Your task to perform on an android device: Clear the cart on ebay.com. Search for "macbook" on ebay.com, select the first entry, add it to the cart, then select checkout. Image 0: 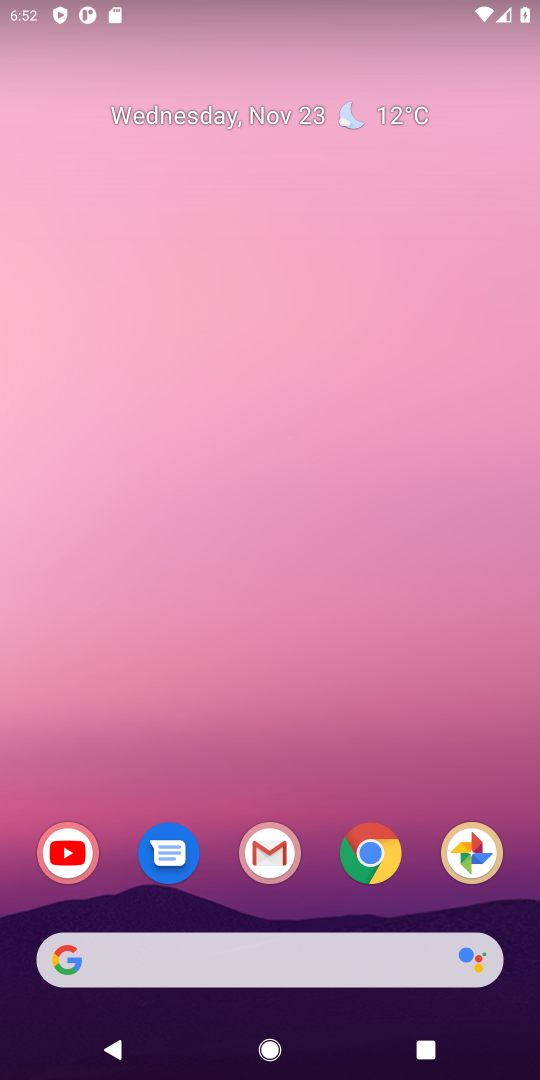
Step 0: click (379, 865)
Your task to perform on an android device: Clear the cart on ebay.com. Search for "macbook" on ebay.com, select the first entry, add it to the cart, then select checkout. Image 1: 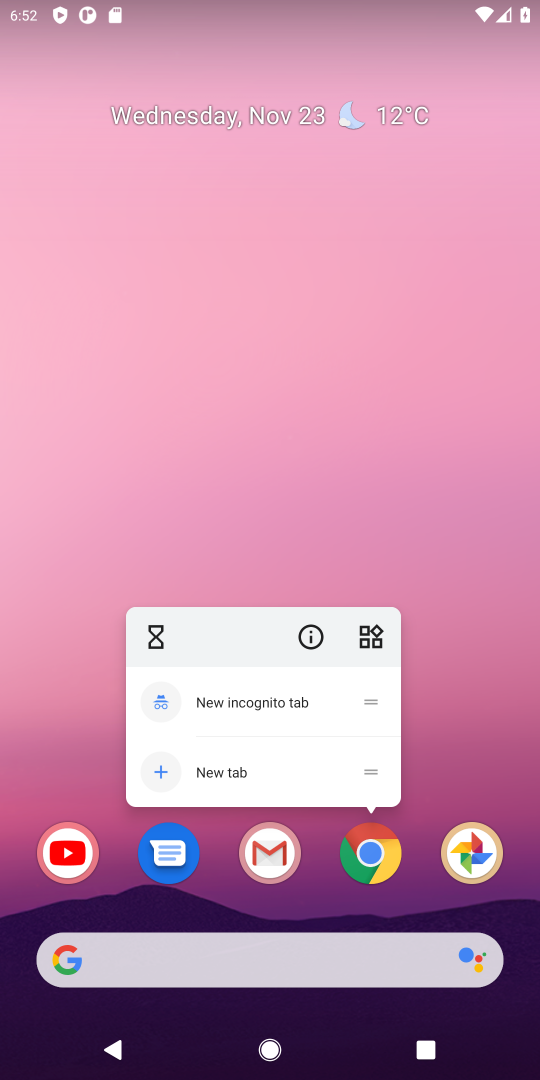
Step 1: click (379, 865)
Your task to perform on an android device: Clear the cart on ebay.com. Search for "macbook" on ebay.com, select the first entry, add it to the cart, then select checkout. Image 2: 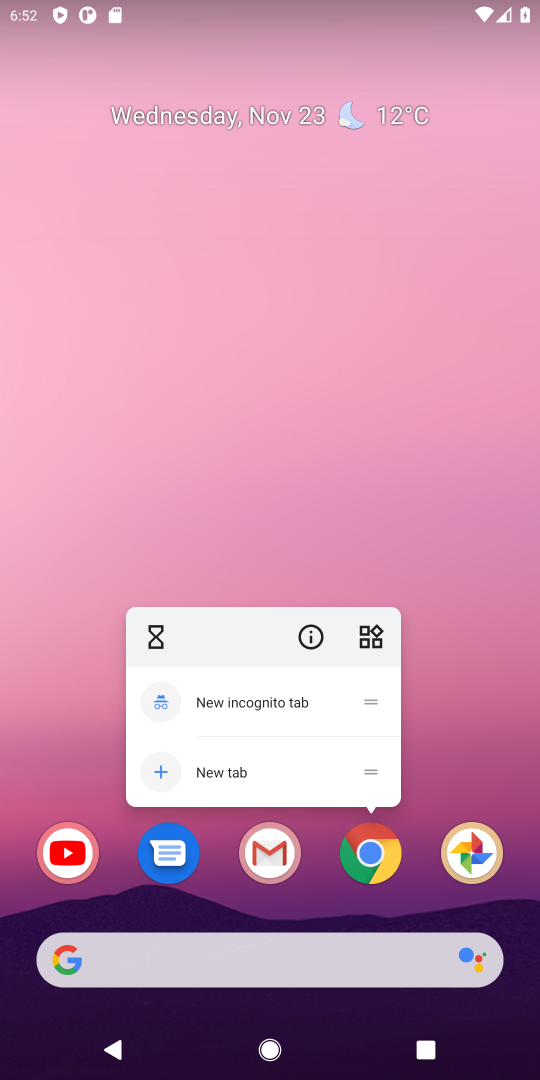
Step 2: click (525, 644)
Your task to perform on an android device: Clear the cart on ebay.com. Search for "macbook" on ebay.com, select the first entry, add it to the cart, then select checkout. Image 3: 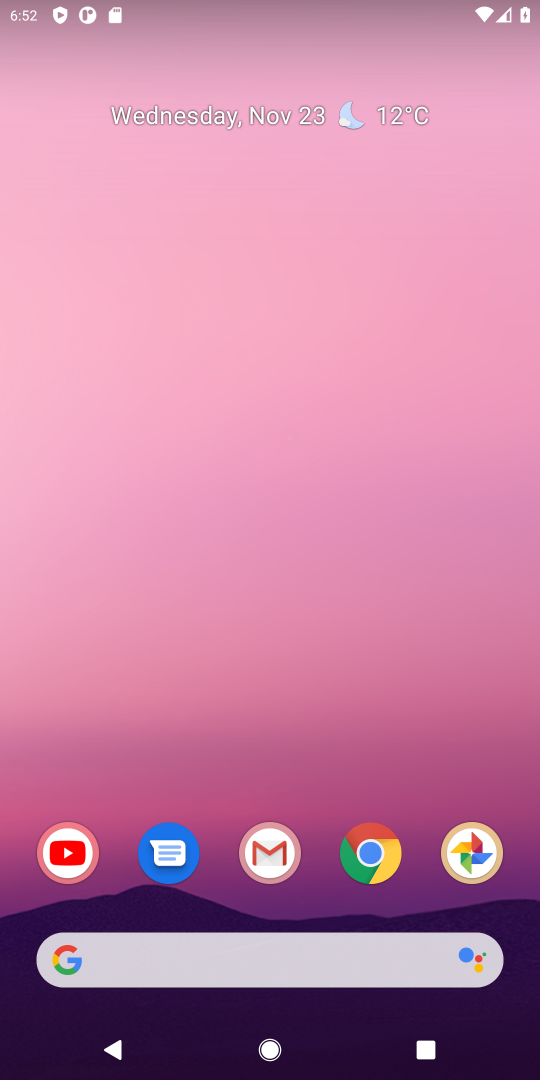
Step 3: click (373, 842)
Your task to perform on an android device: Clear the cart on ebay.com. Search for "macbook" on ebay.com, select the first entry, add it to the cart, then select checkout. Image 4: 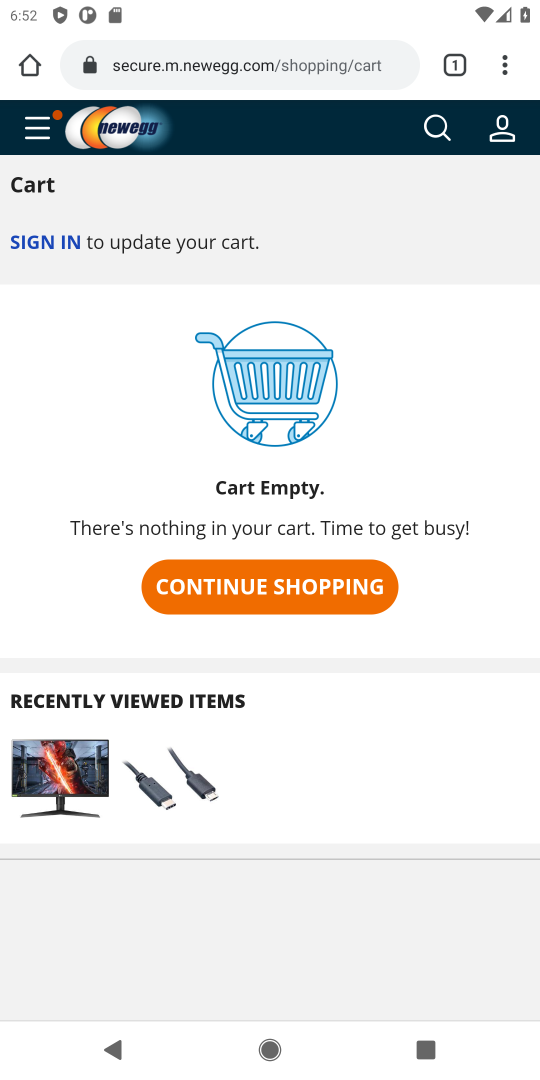
Step 4: click (249, 71)
Your task to perform on an android device: Clear the cart on ebay.com. Search for "macbook" on ebay.com, select the first entry, add it to the cart, then select checkout. Image 5: 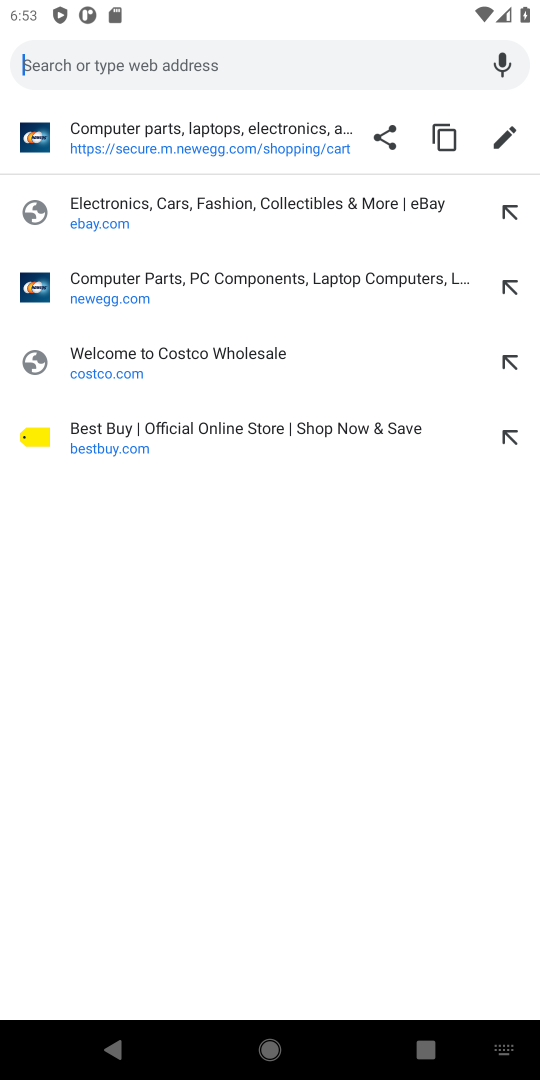
Step 5: click (91, 213)
Your task to perform on an android device: Clear the cart on ebay.com. Search for "macbook" on ebay.com, select the first entry, add it to the cart, then select checkout. Image 6: 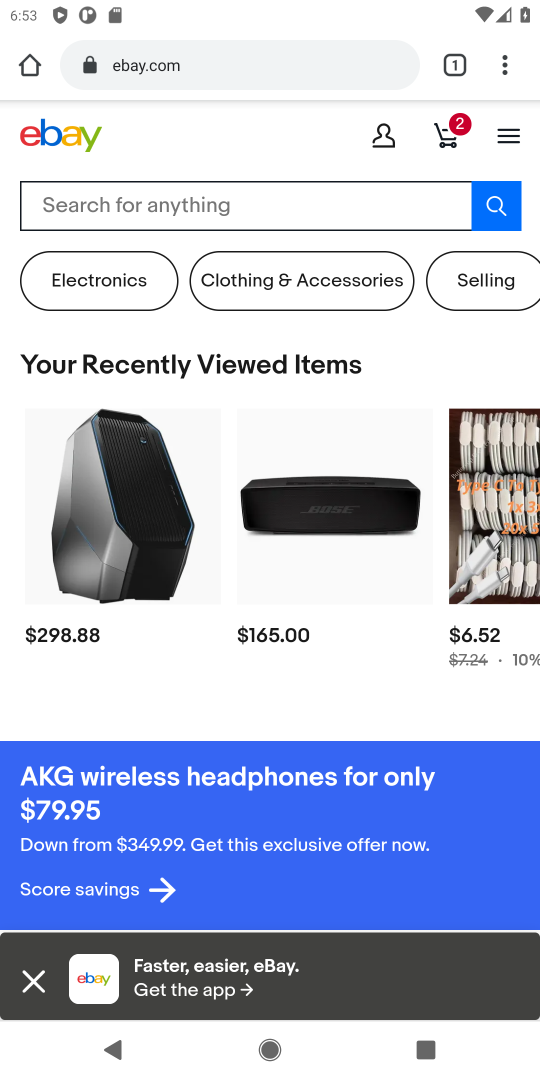
Step 6: click (440, 141)
Your task to perform on an android device: Clear the cart on ebay.com. Search for "macbook" on ebay.com, select the first entry, add it to the cart, then select checkout. Image 7: 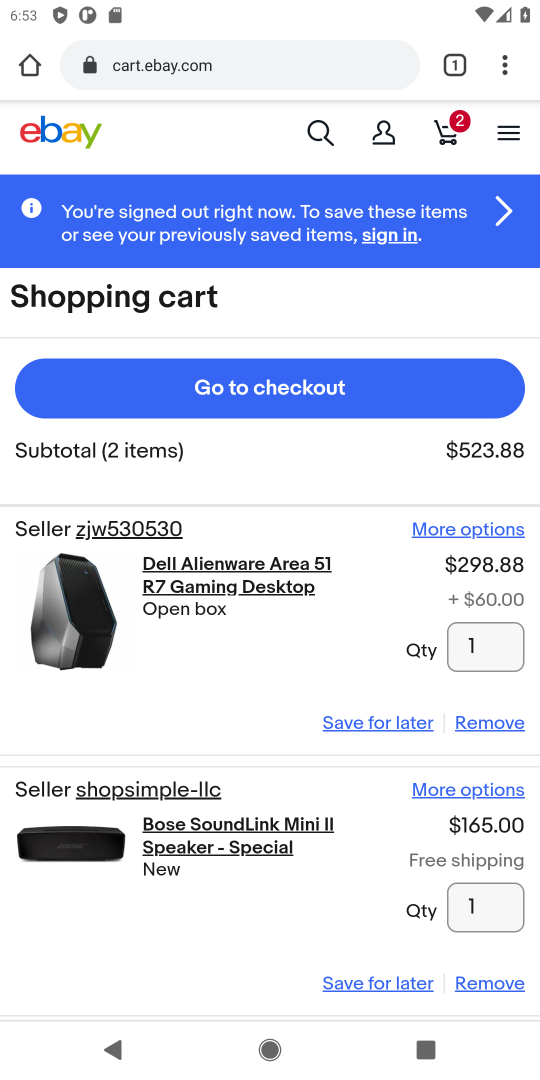
Step 7: click (480, 723)
Your task to perform on an android device: Clear the cart on ebay.com. Search for "macbook" on ebay.com, select the first entry, add it to the cart, then select checkout. Image 8: 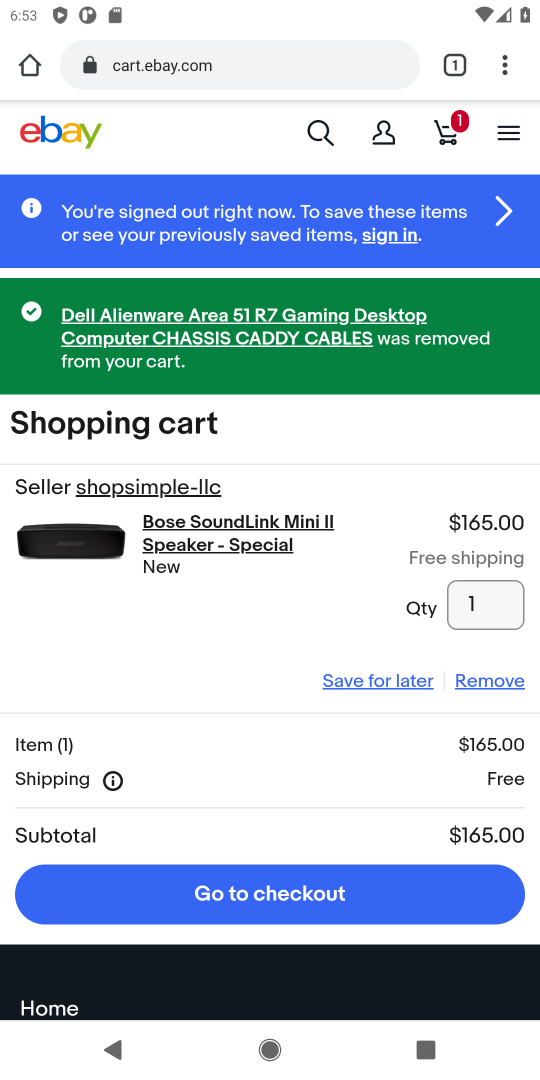
Step 8: click (490, 687)
Your task to perform on an android device: Clear the cart on ebay.com. Search for "macbook" on ebay.com, select the first entry, add it to the cart, then select checkout. Image 9: 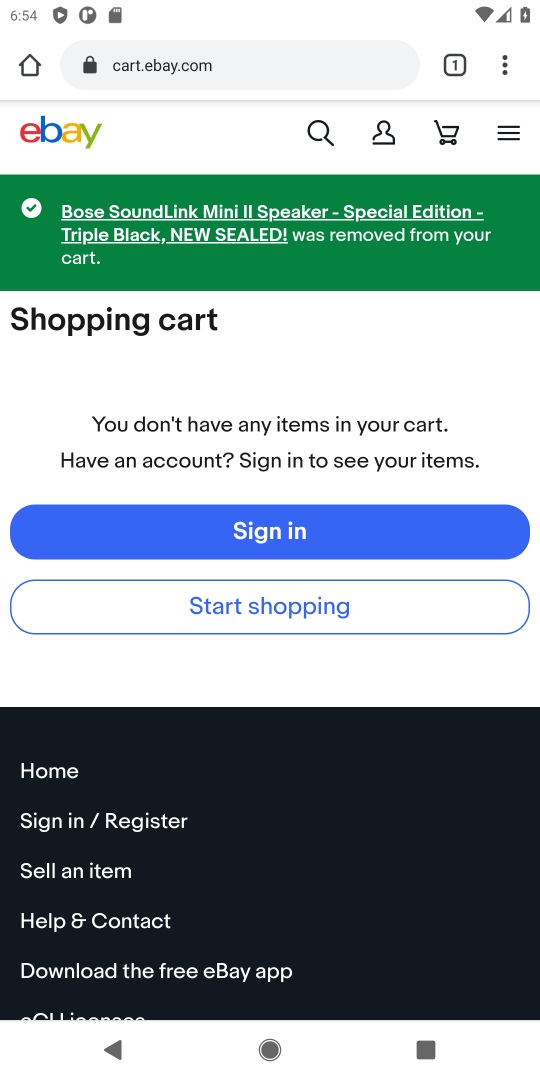
Step 9: click (319, 134)
Your task to perform on an android device: Clear the cart on ebay.com. Search for "macbook" on ebay.com, select the first entry, add it to the cart, then select checkout. Image 10: 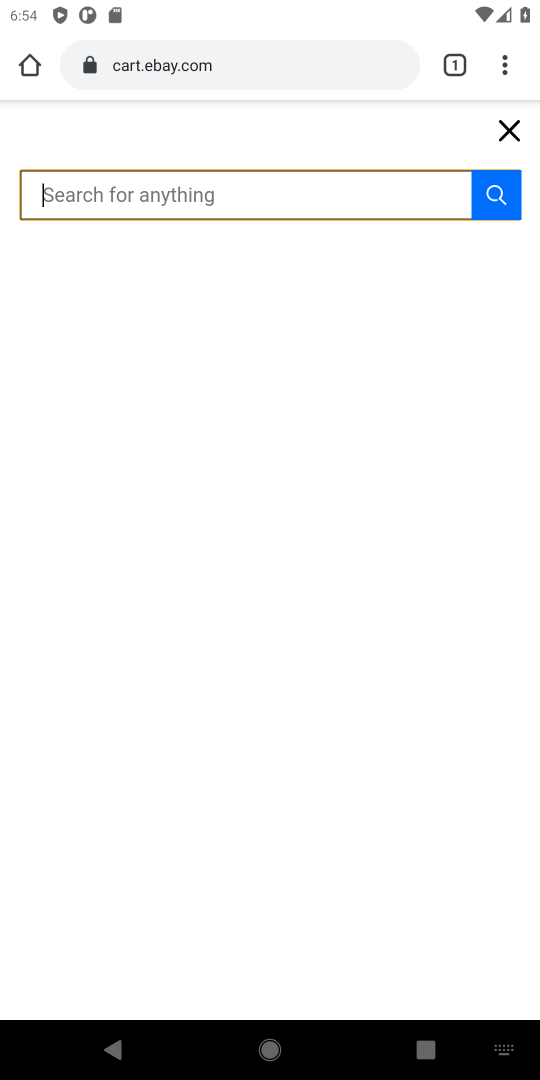
Step 10: type "macbook"
Your task to perform on an android device: Clear the cart on ebay.com. Search for "macbook" on ebay.com, select the first entry, add it to the cart, then select checkout. Image 11: 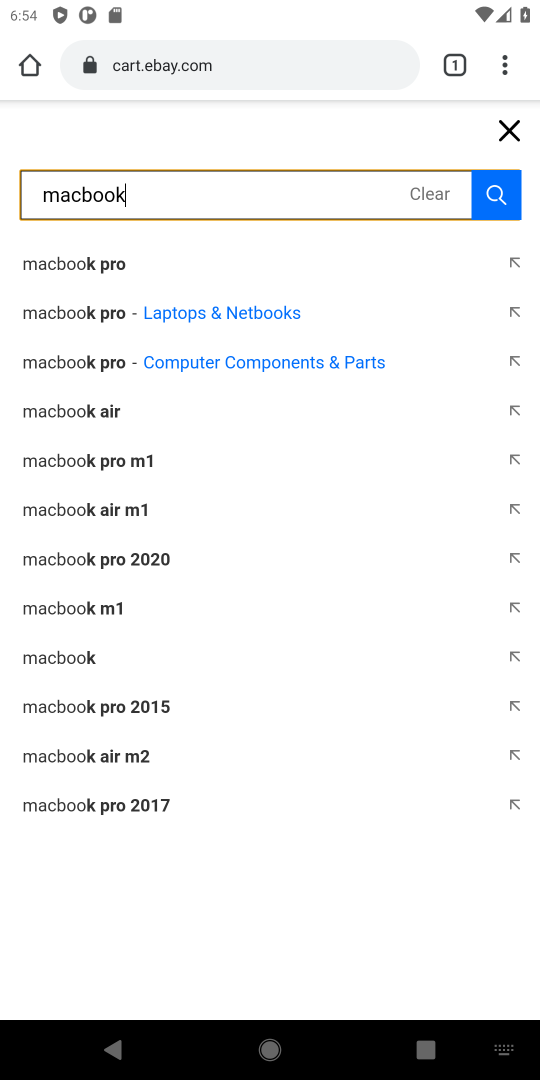
Step 11: click (72, 667)
Your task to perform on an android device: Clear the cart on ebay.com. Search for "macbook" on ebay.com, select the first entry, add it to the cart, then select checkout. Image 12: 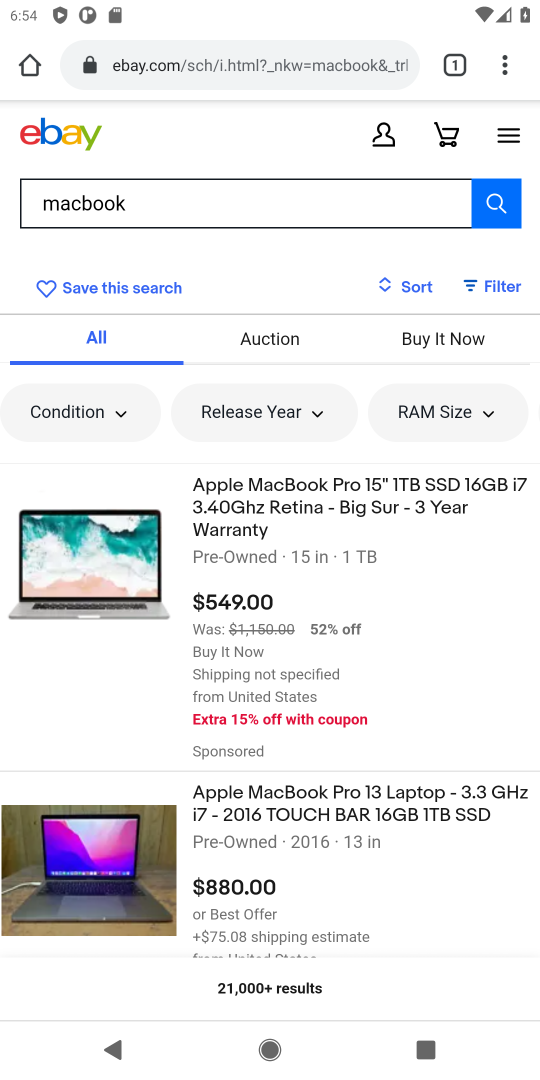
Step 12: click (116, 573)
Your task to perform on an android device: Clear the cart on ebay.com. Search for "macbook" on ebay.com, select the first entry, add it to the cart, then select checkout. Image 13: 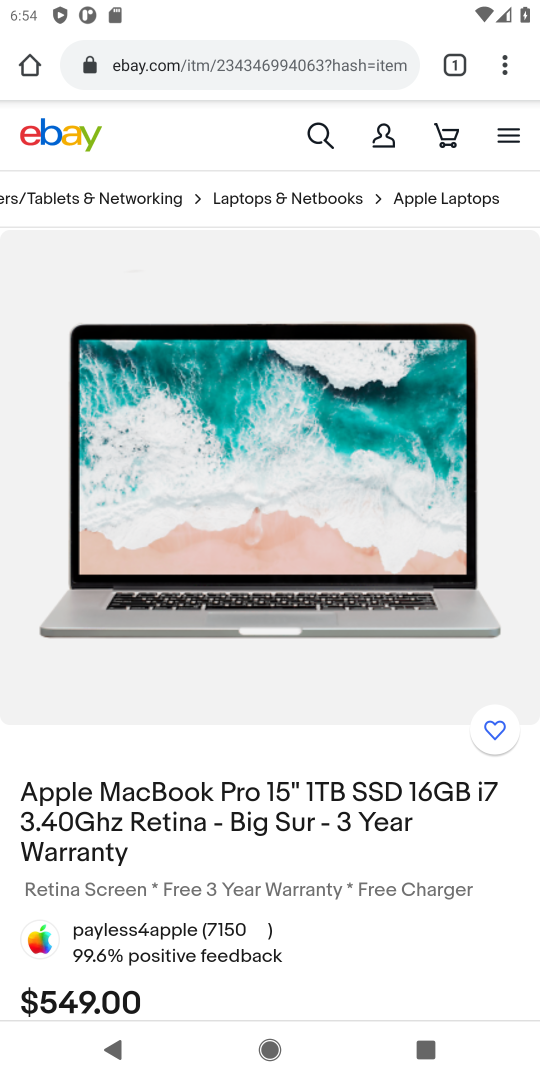
Step 13: drag from (277, 800) to (255, 215)
Your task to perform on an android device: Clear the cart on ebay.com. Search for "macbook" on ebay.com, select the first entry, add it to the cart, then select checkout. Image 14: 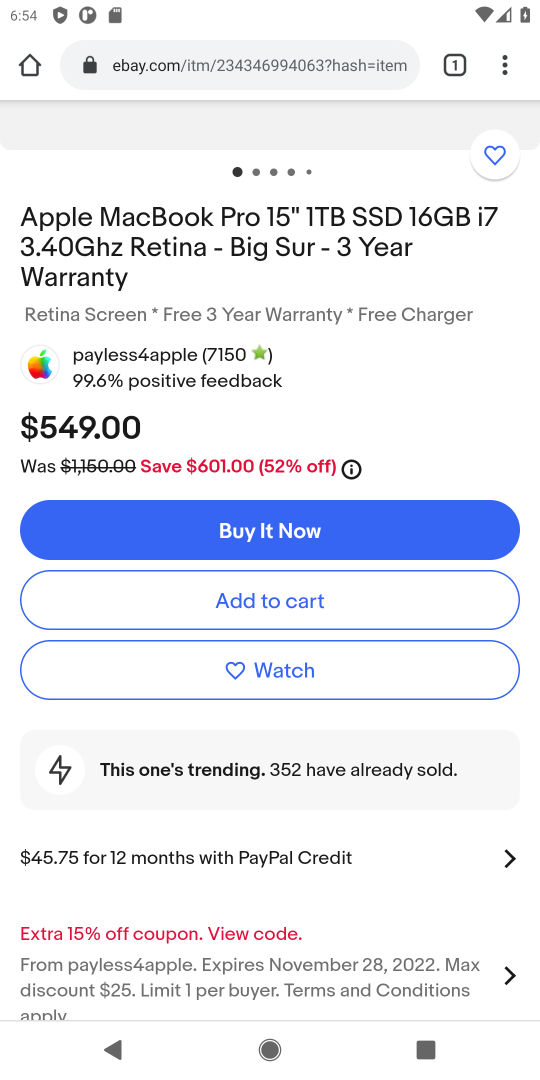
Step 14: click (257, 606)
Your task to perform on an android device: Clear the cart on ebay.com. Search for "macbook" on ebay.com, select the first entry, add it to the cart, then select checkout. Image 15: 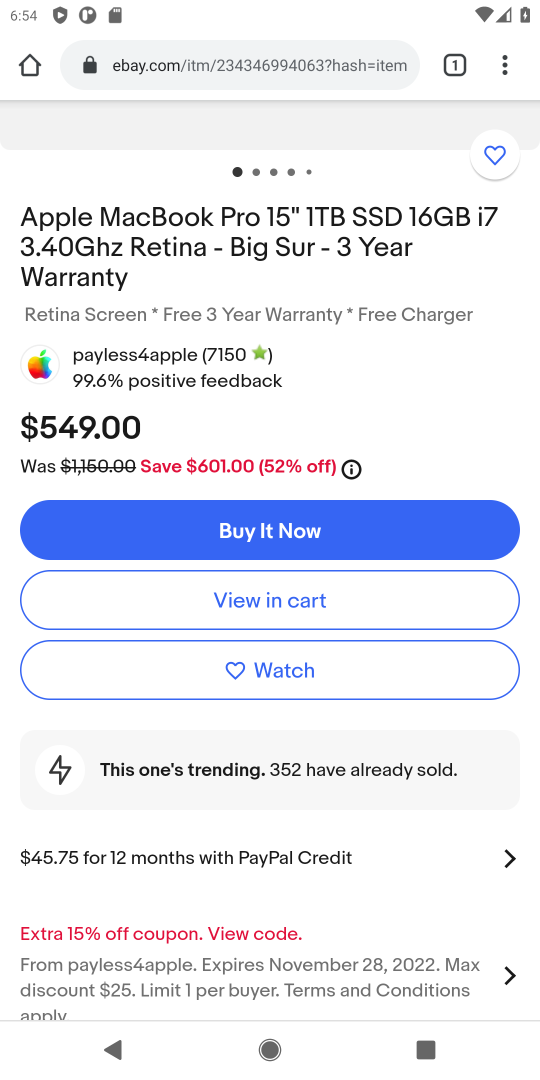
Step 15: click (257, 606)
Your task to perform on an android device: Clear the cart on ebay.com. Search for "macbook" on ebay.com, select the first entry, add it to the cart, then select checkout. Image 16: 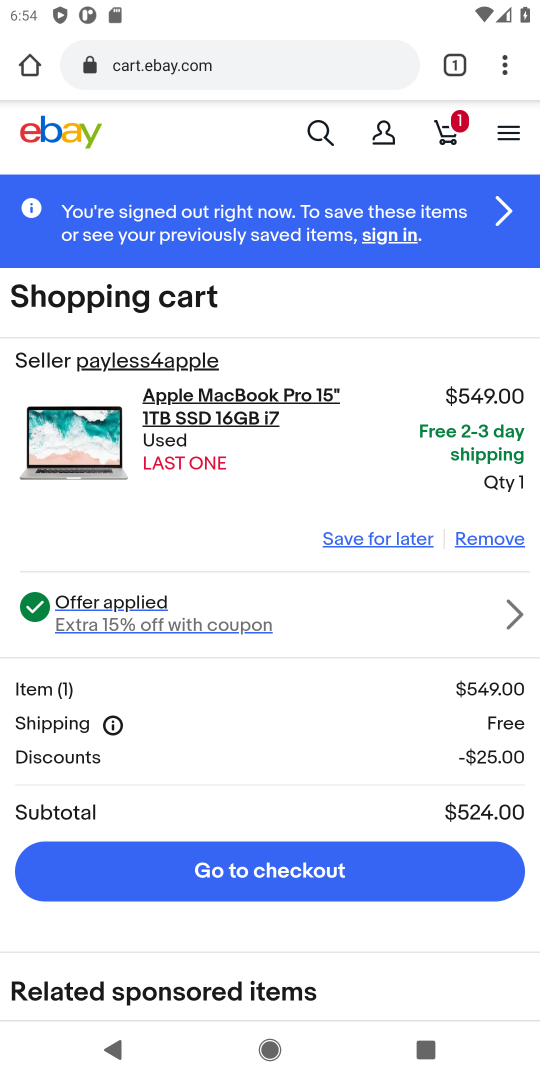
Step 16: click (248, 872)
Your task to perform on an android device: Clear the cart on ebay.com. Search for "macbook" on ebay.com, select the first entry, add it to the cart, then select checkout. Image 17: 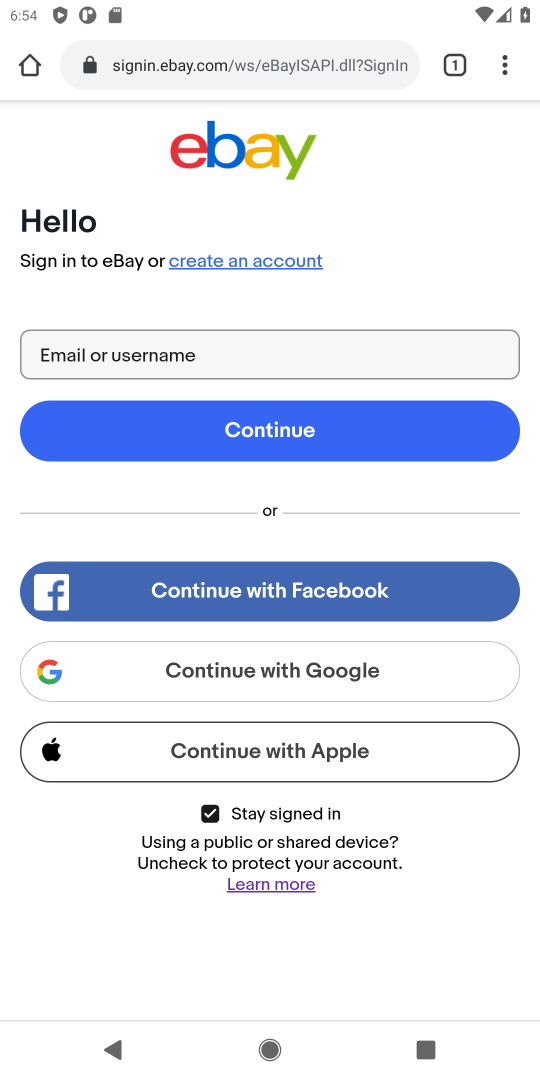
Step 17: task complete